Your task to perform on an android device: turn on javascript in the chrome app Image 0: 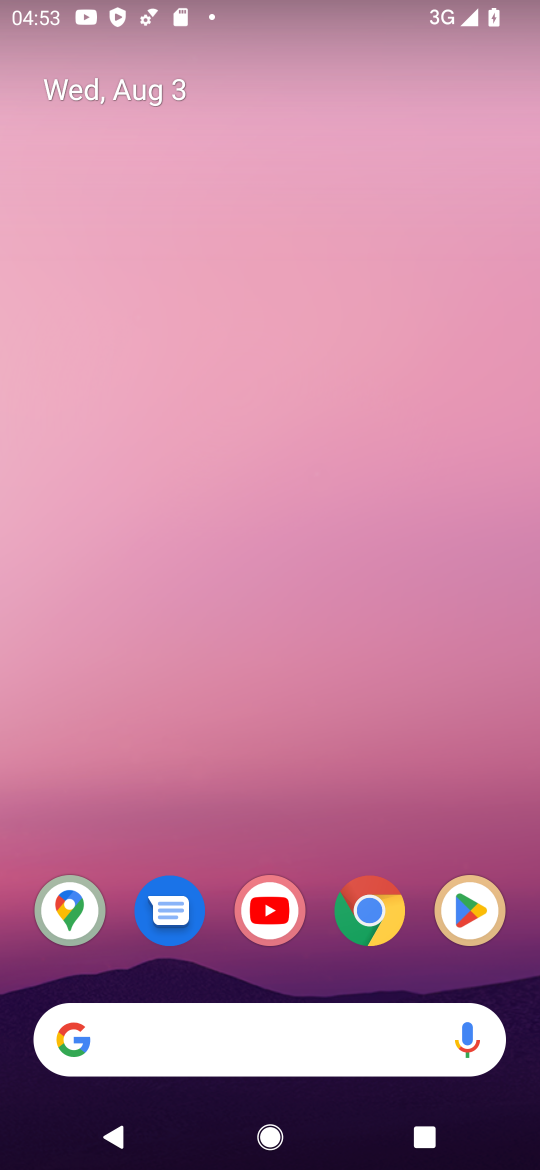
Step 0: press home button
Your task to perform on an android device: turn on javascript in the chrome app Image 1: 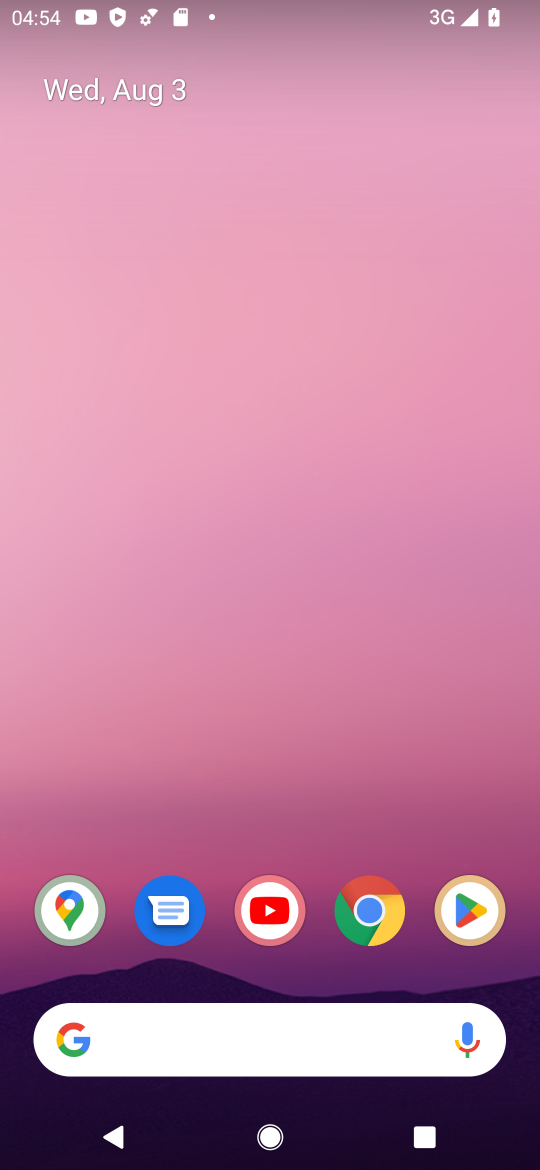
Step 1: click (376, 901)
Your task to perform on an android device: turn on javascript in the chrome app Image 2: 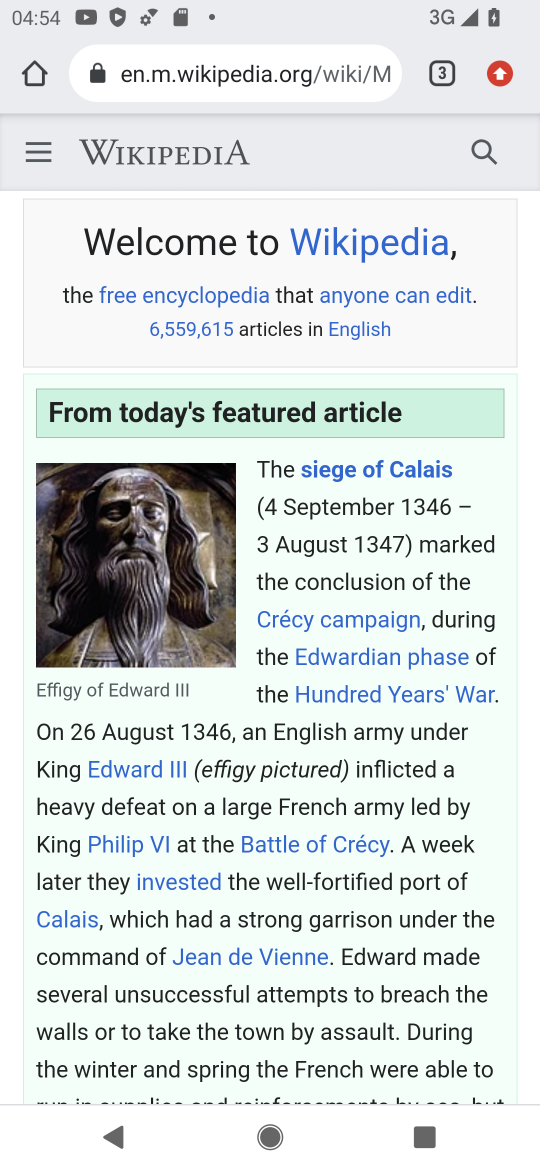
Step 2: click (505, 80)
Your task to perform on an android device: turn on javascript in the chrome app Image 3: 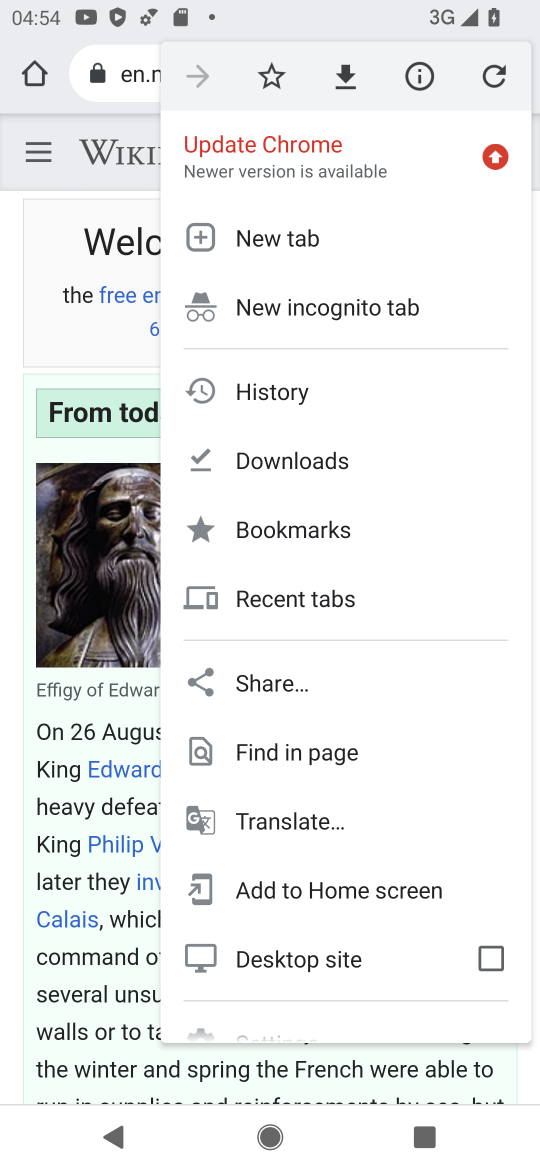
Step 3: drag from (321, 920) to (293, 279)
Your task to perform on an android device: turn on javascript in the chrome app Image 4: 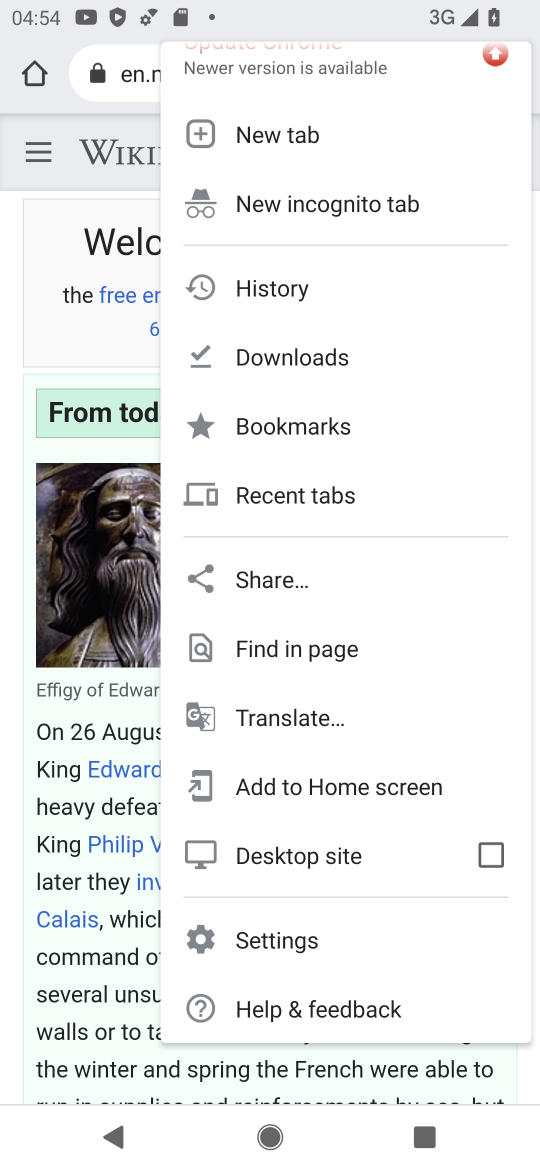
Step 4: click (317, 943)
Your task to perform on an android device: turn on javascript in the chrome app Image 5: 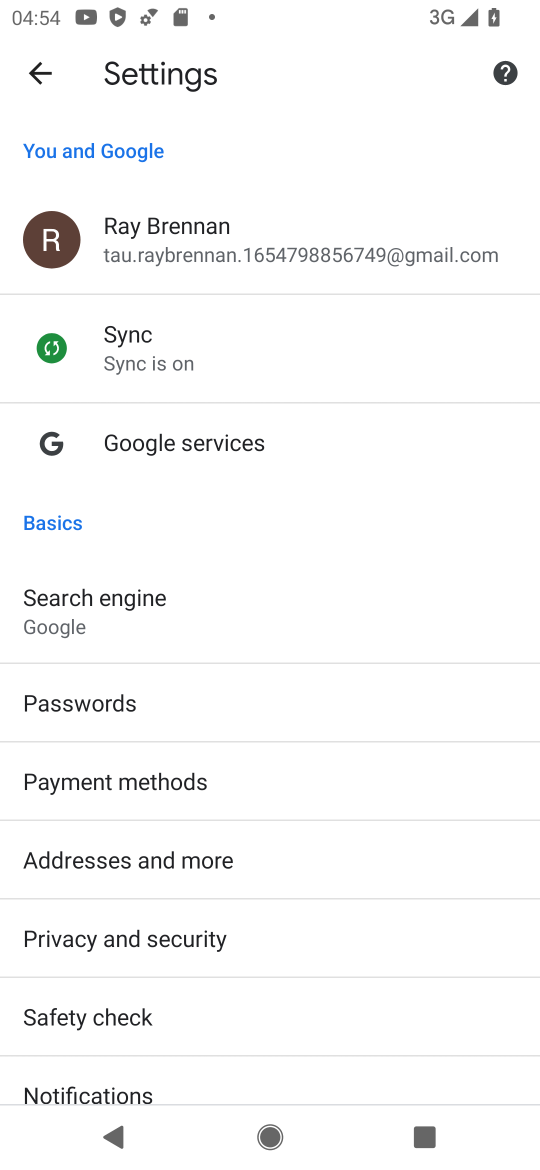
Step 5: drag from (205, 1041) to (210, 388)
Your task to perform on an android device: turn on javascript in the chrome app Image 6: 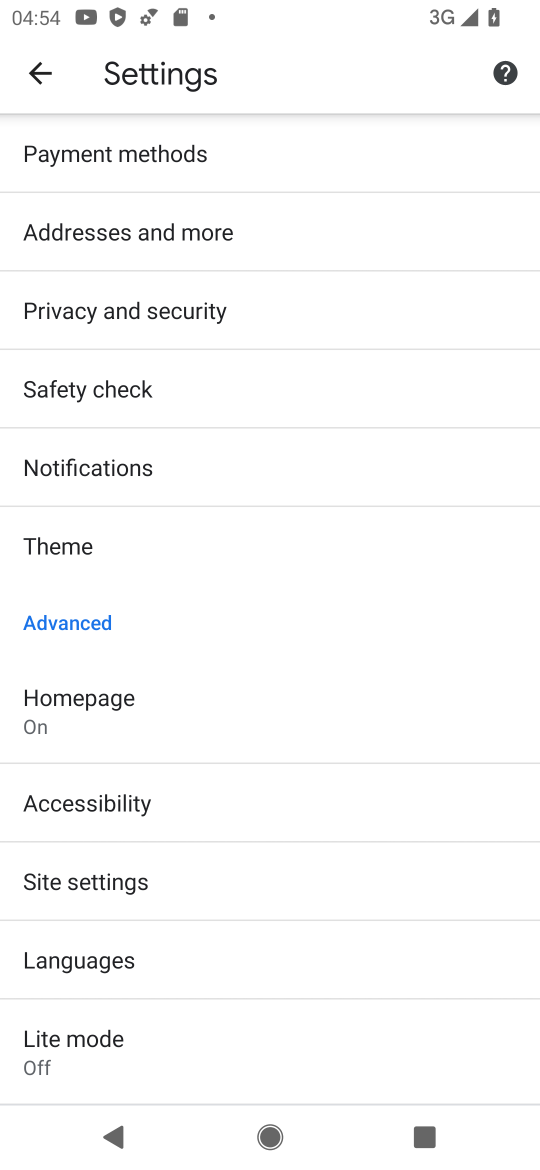
Step 6: click (172, 875)
Your task to perform on an android device: turn on javascript in the chrome app Image 7: 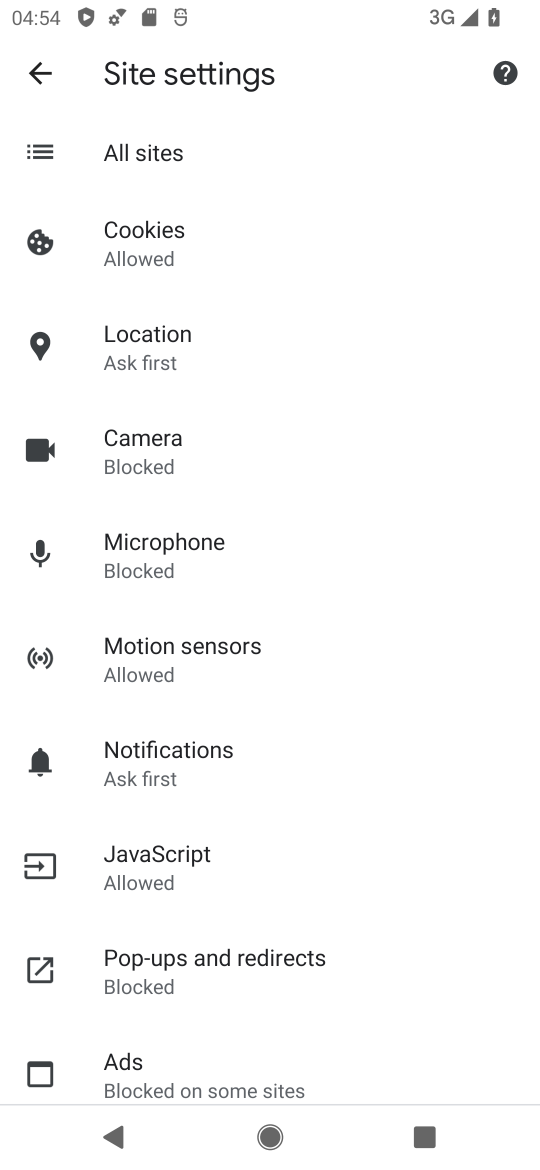
Step 7: click (194, 853)
Your task to perform on an android device: turn on javascript in the chrome app Image 8: 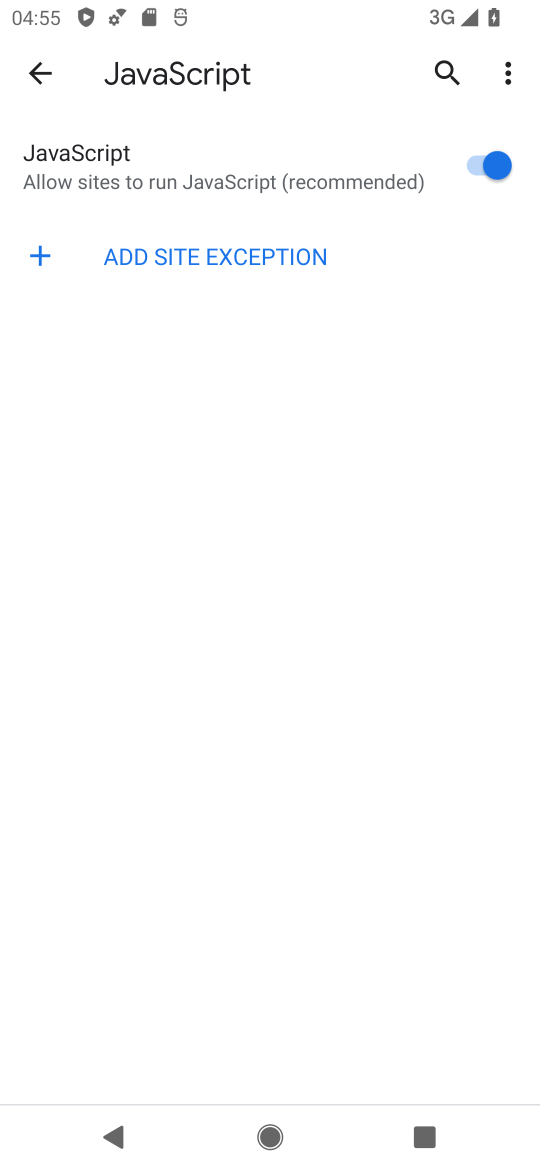
Step 8: task complete